Your task to perform on an android device: open app "Viber Messenger" (install if not already installed) Image 0: 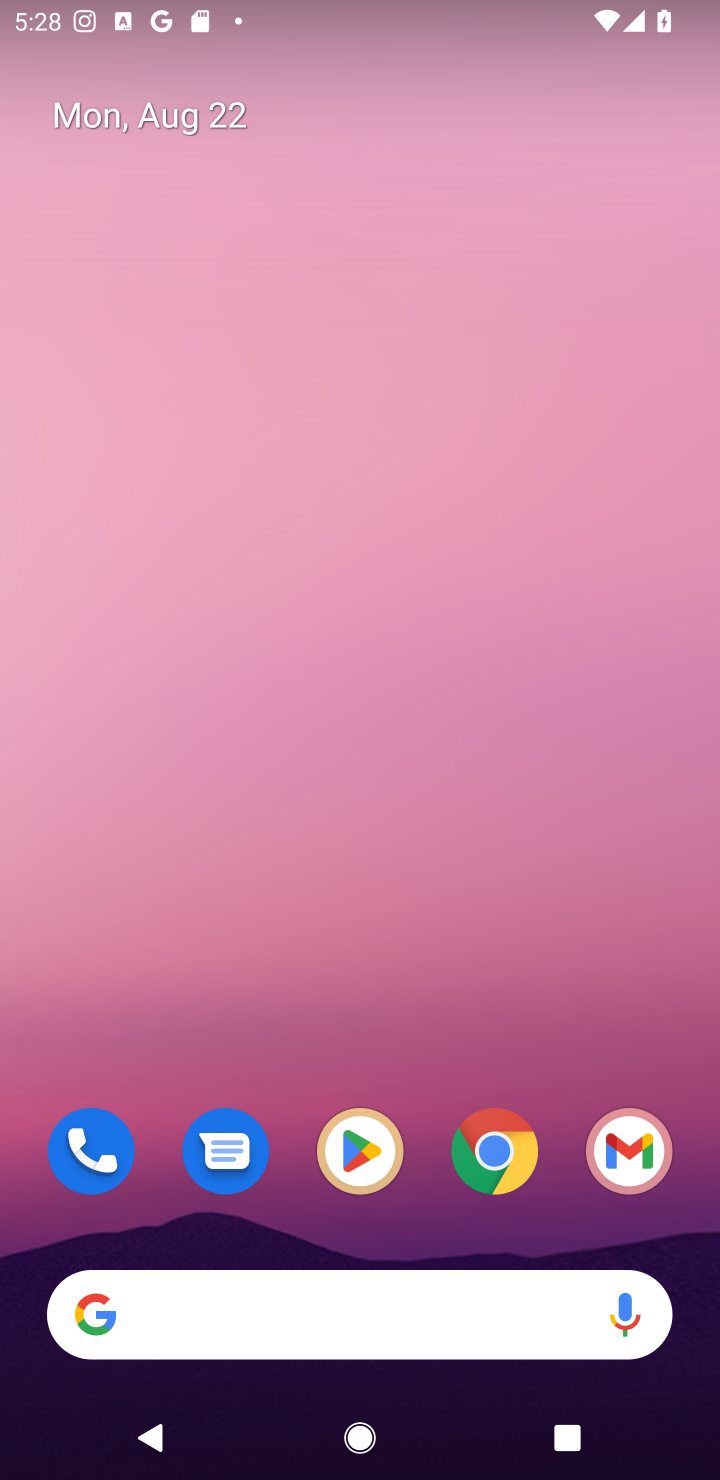
Step 0: press enter
Your task to perform on an android device: open app "Viber Messenger" (install if not already installed) Image 1: 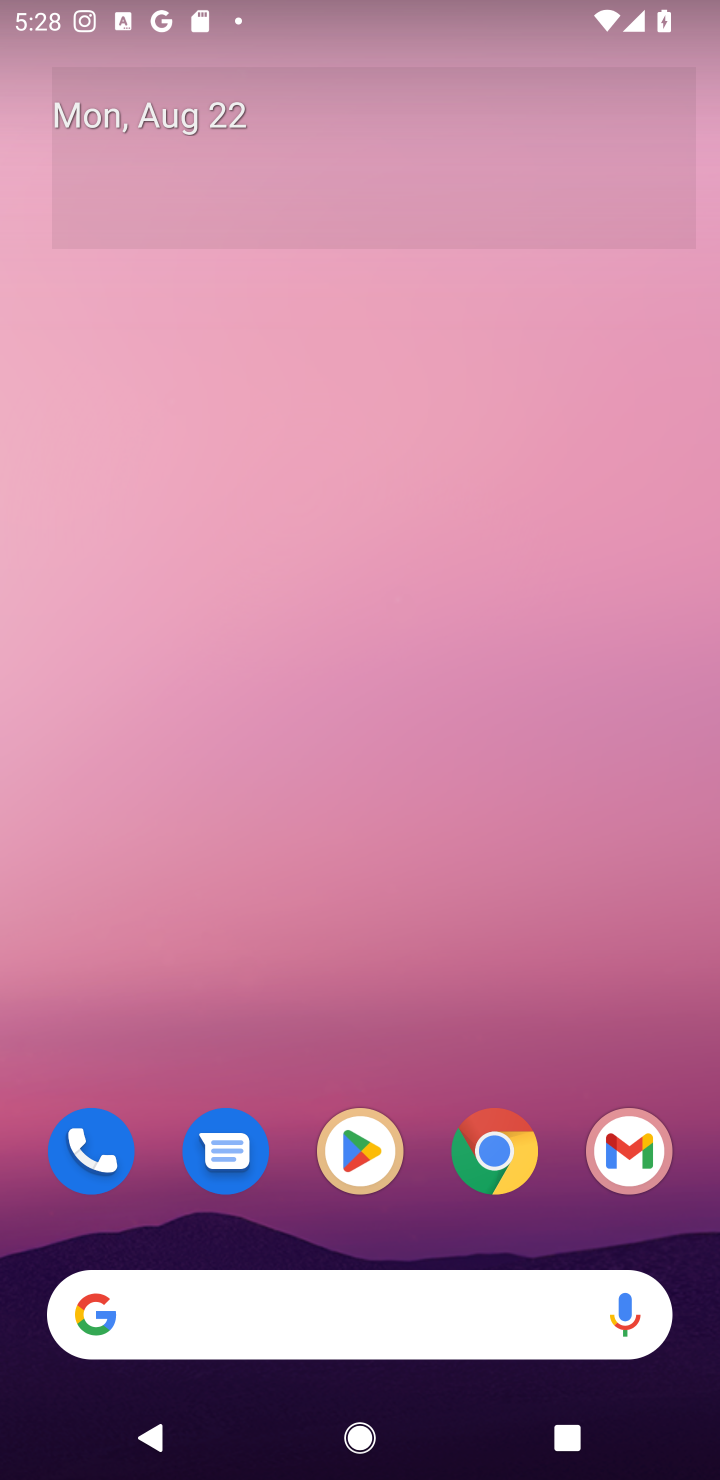
Step 1: click (362, 1145)
Your task to perform on an android device: open app "Viber Messenger" (install if not already installed) Image 2: 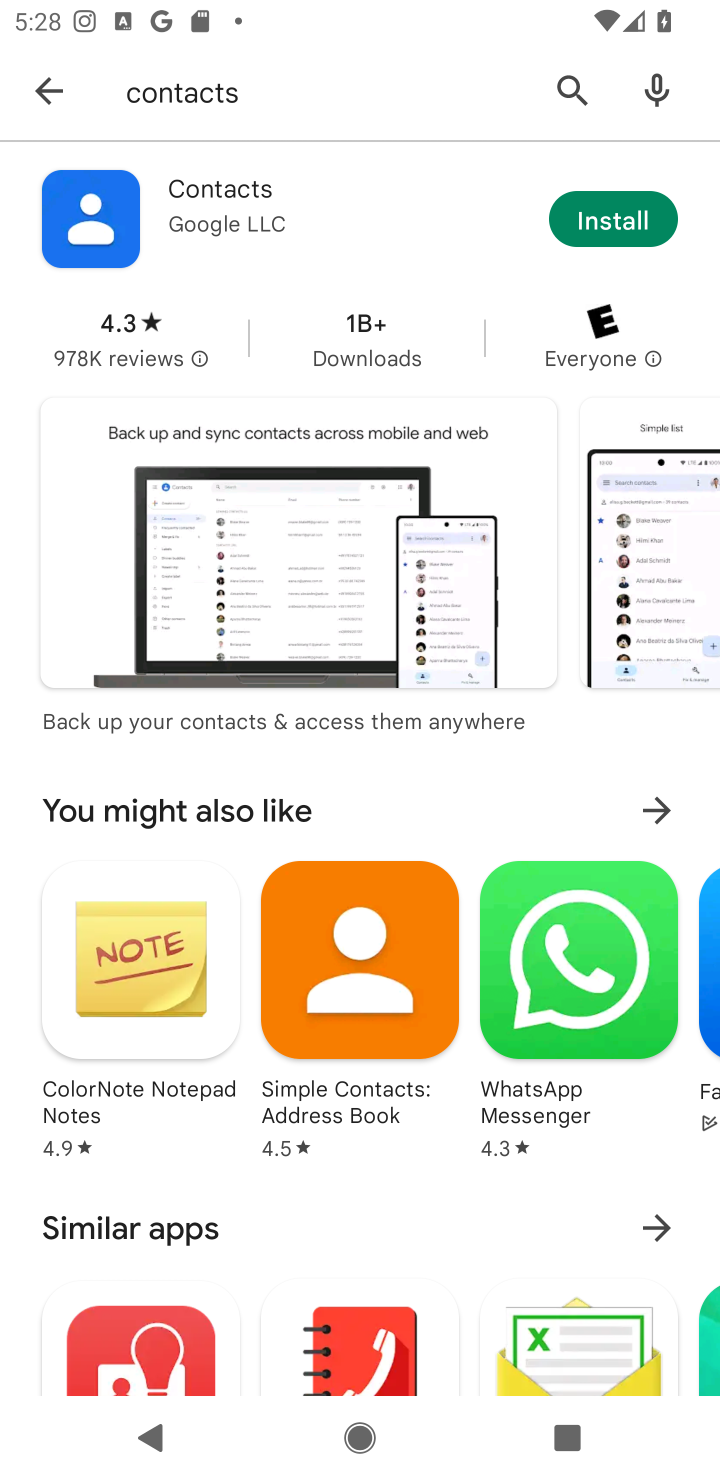
Step 2: click (583, 90)
Your task to perform on an android device: open app "Viber Messenger" (install if not already installed) Image 3: 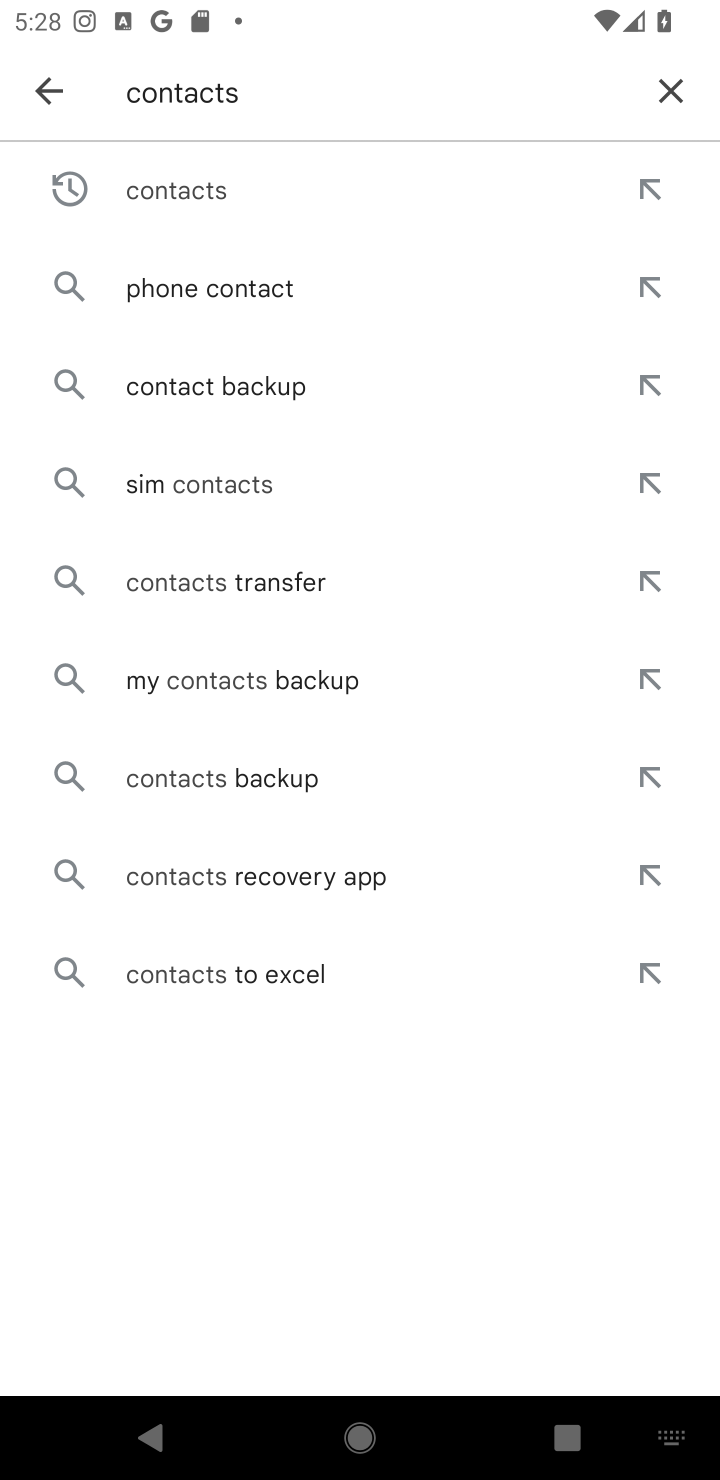
Step 3: click (668, 92)
Your task to perform on an android device: open app "Viber Messenger" (install if not already installed) Image 4: 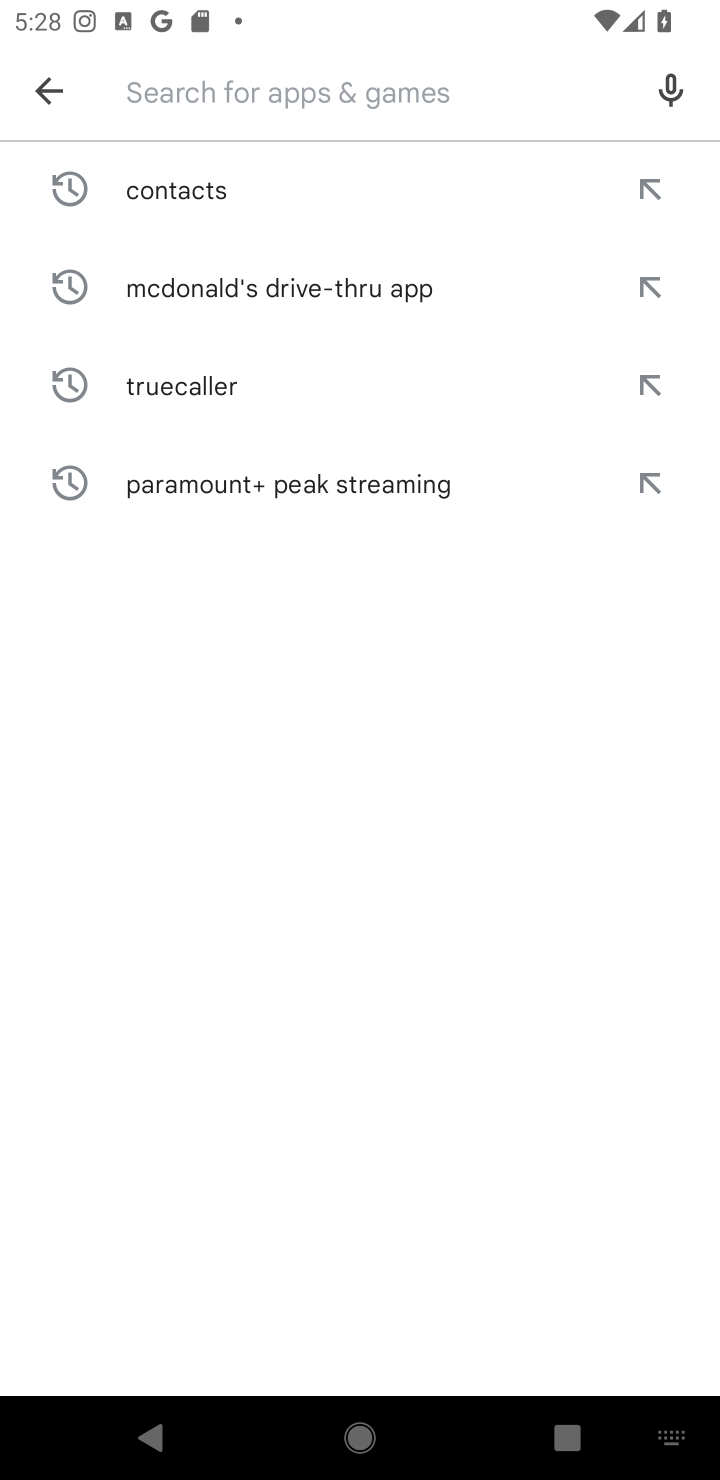
Step 4: type "Viber Messenger"
Your task to perform on an android device: open app "Viber Messenger" (install if not already installed) Image 5: 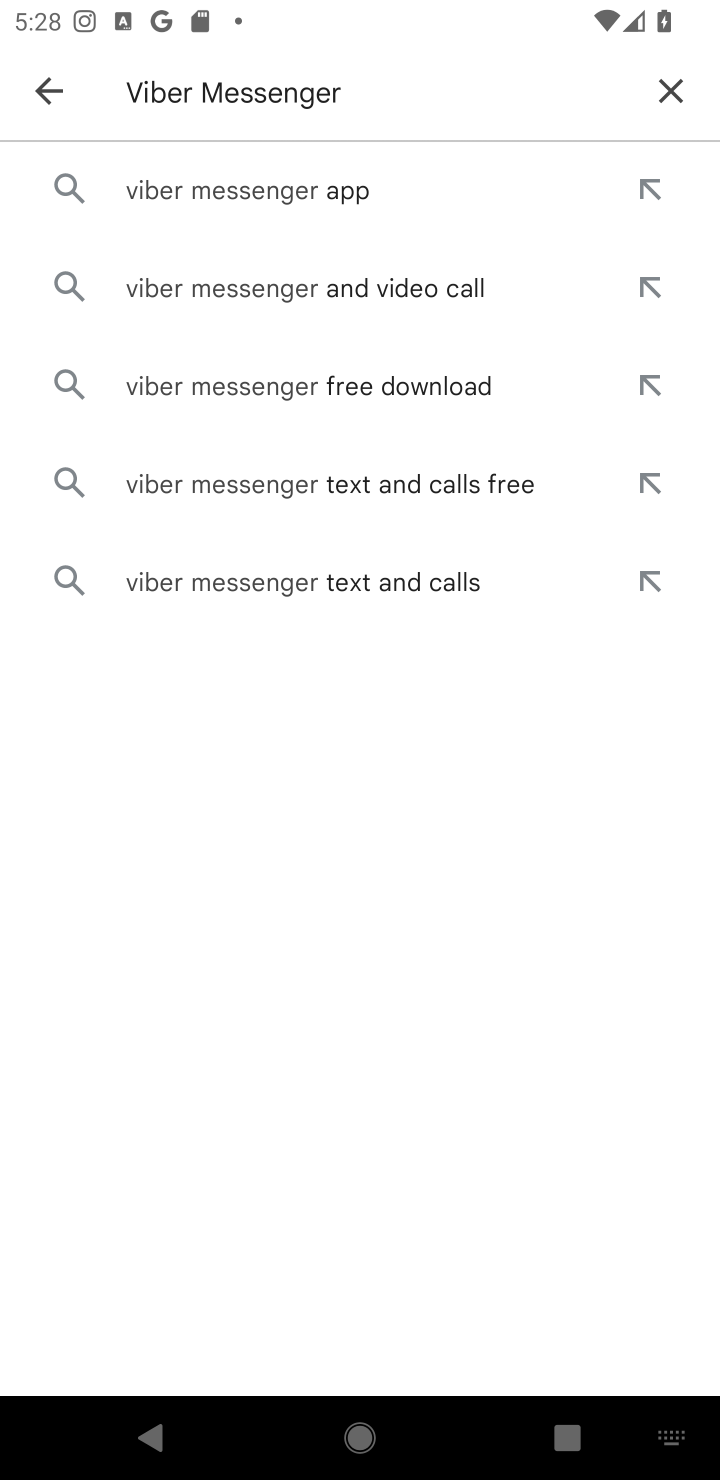
Step 5: click (231, 179)
Your task to perform on an android device: open app "Viber Messenger" (install if not already installed) Image 6: 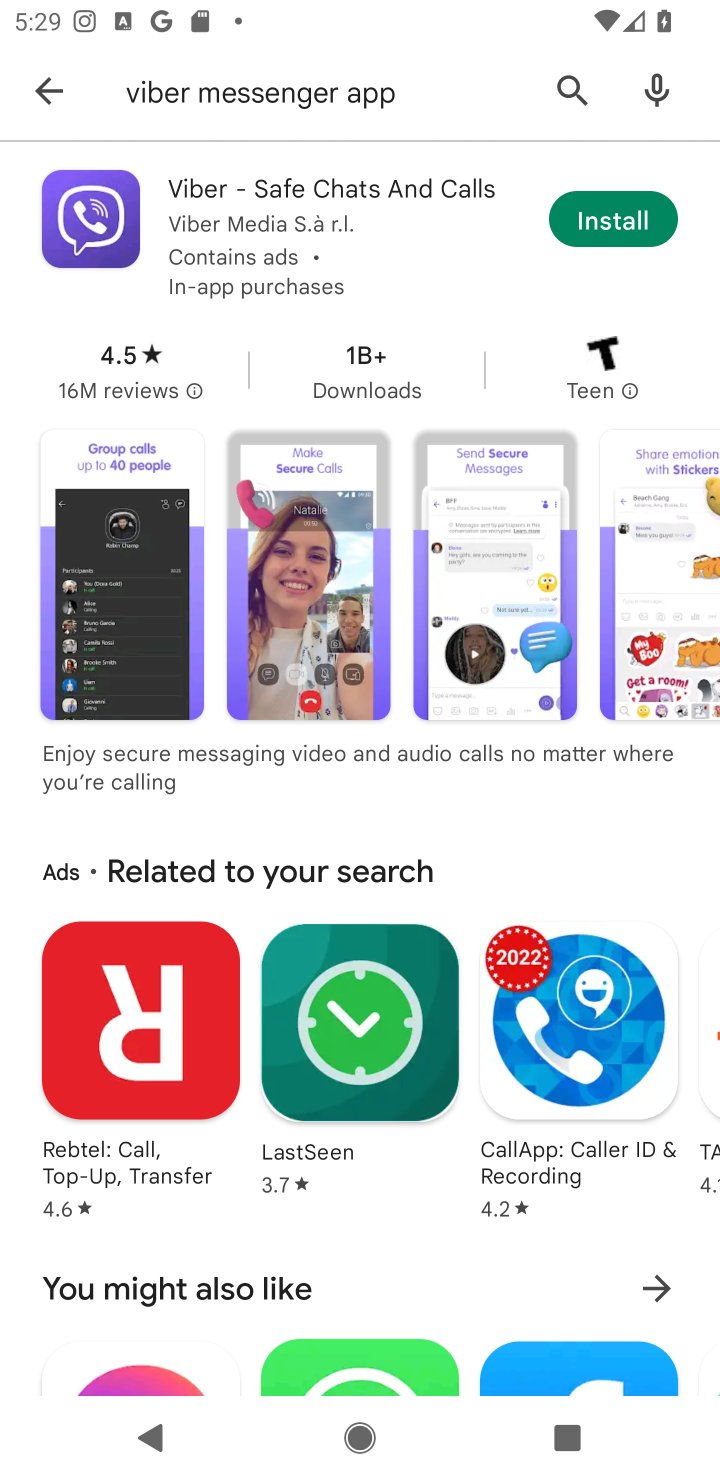
Step 6: click (628, 206)
Your task to perform on an android device: open app "Viber Messenger" (install if not already installed) Image 7: 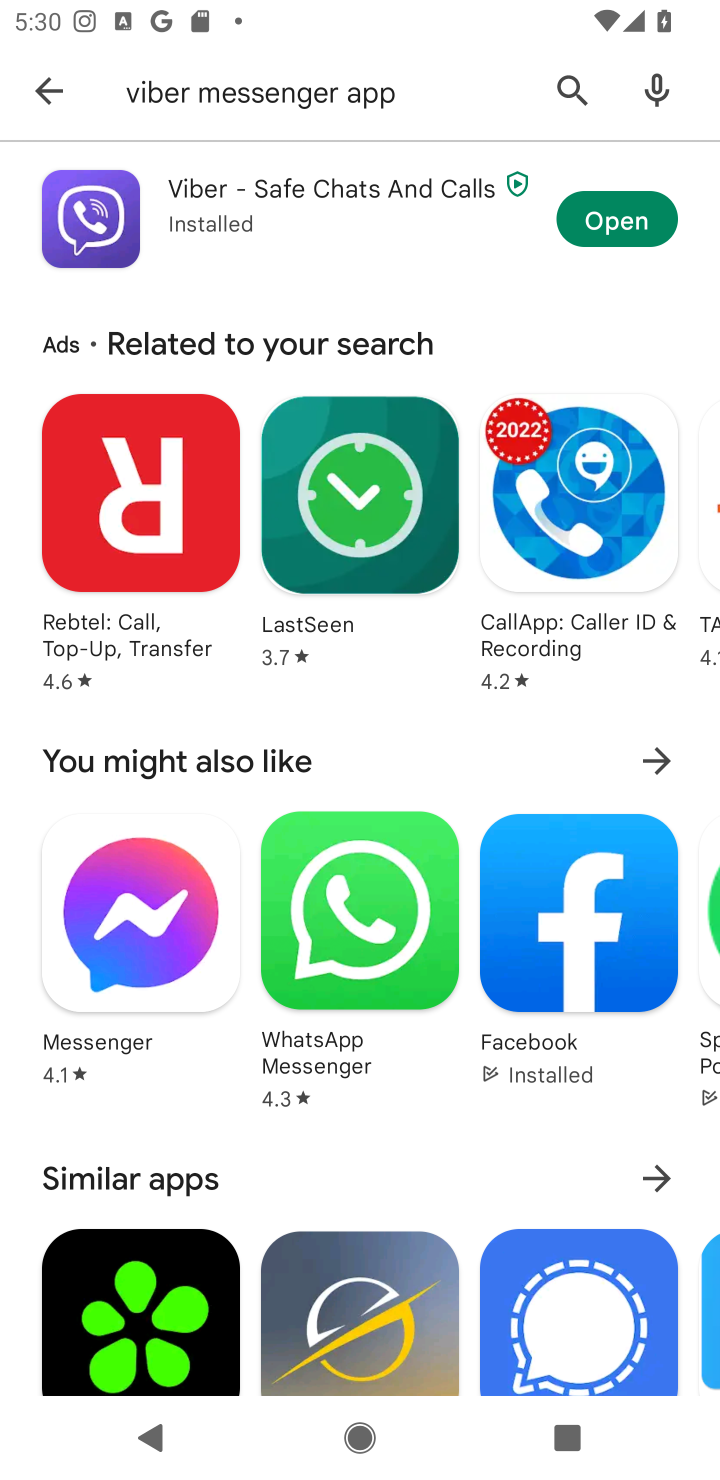
Step 7: click (627, 220)
Your task to perform on an android device: open app "Viber Messenger" (install if not already installed) Image 8: 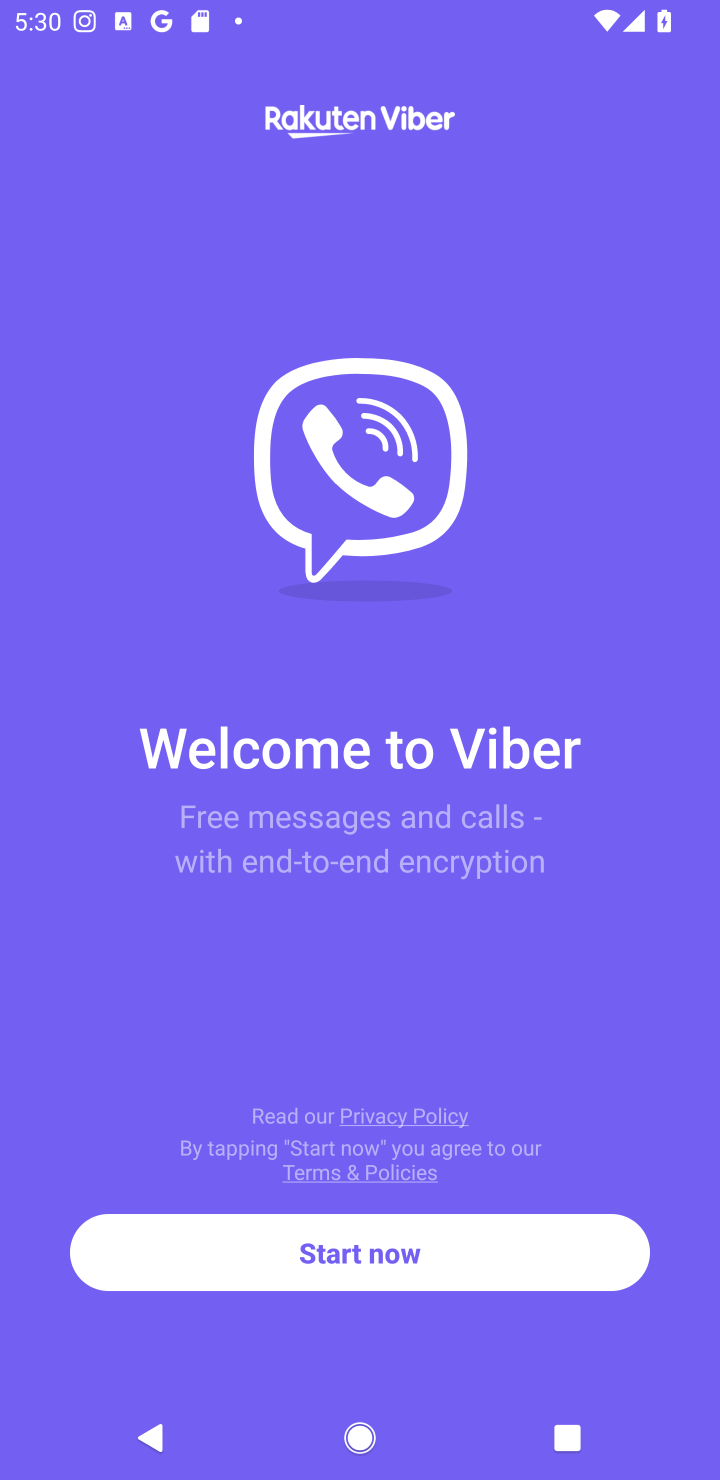
Step 8: task complete